Your task to perform on an android device: turn on airplane mode Image 0: 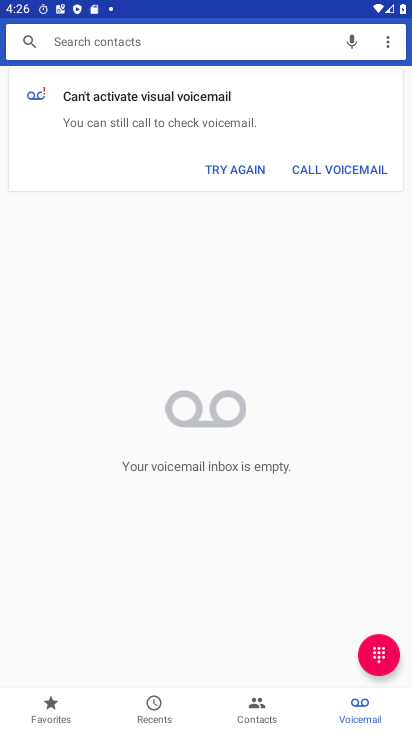
Step 0: press home button
Your task to perform on an android device: turn on airplane mode Image 1: 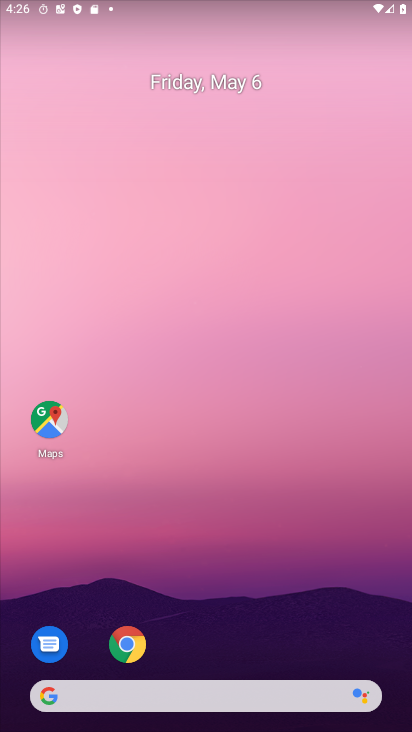
Step 1: drag from (365, 649) to (225, 233)
Your task to perform on an android device: turn on airplane mode Image 2: 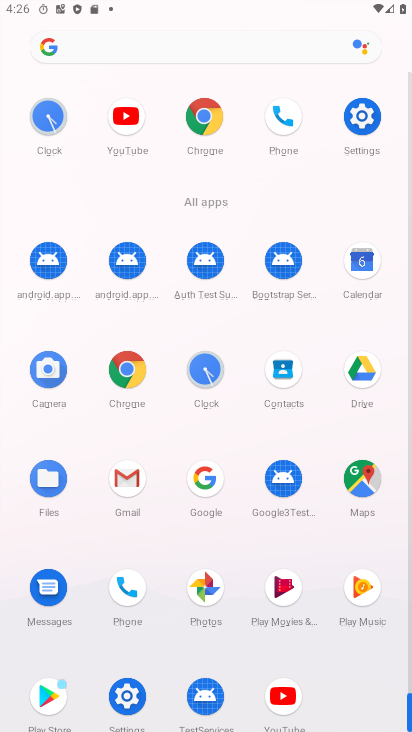
Step 2: click (365, 118)
Your task to perform on an android device: turn on airplane mode Image 3: 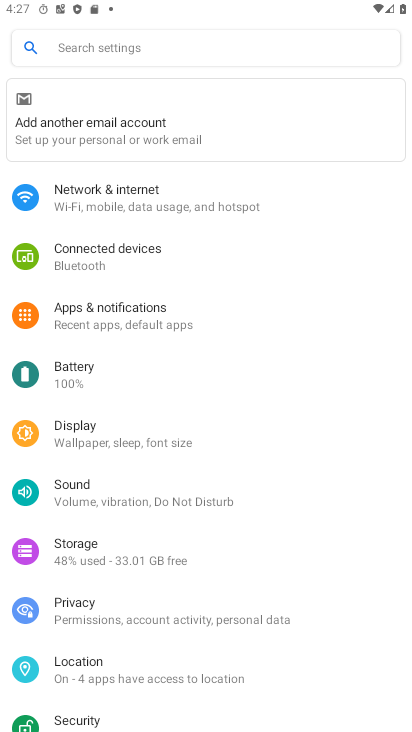
Step 3: click (113, 316)
Your task to perform on an android device: turn on airplane mode Image 4: 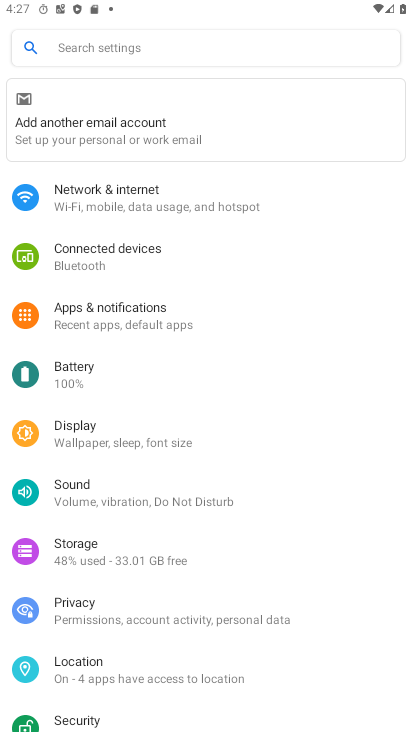
Step 4: click (112, 315)
Your task to perform on an android device: turn on airplane mode Image 5: 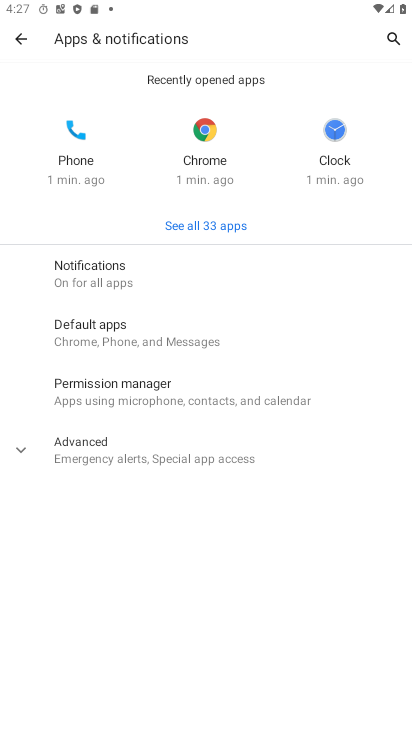
Step 5: click (29, 38)
Your task to perform on an android device: turn on airplane mode Image 6: 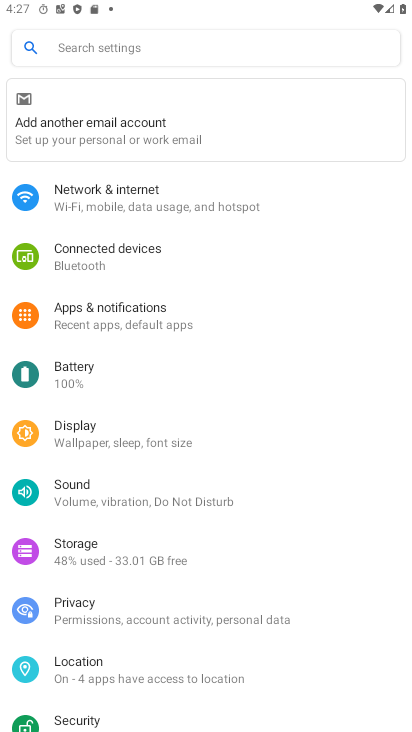
Step 6: click (107, 204)
Your task to perform on an android device: turn on airplane mode Image 7: 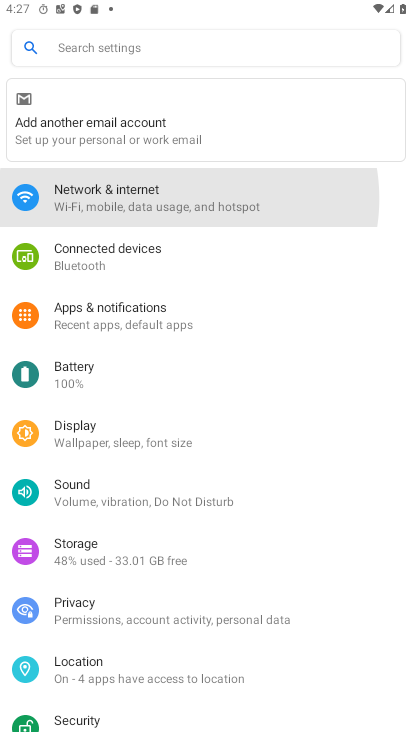
Step 7: click (100, 202)
Your task to perform on an android device: turn on airplane mode Image 8: 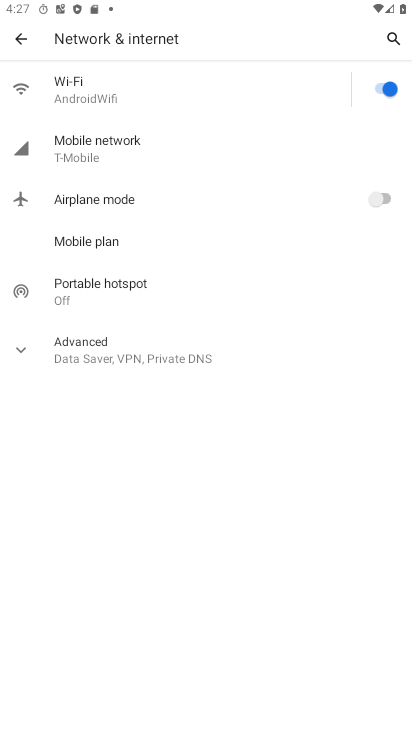
Step 8: click (374, 200)
Your task to perform on an android device: turn on airplane mode Image 9: 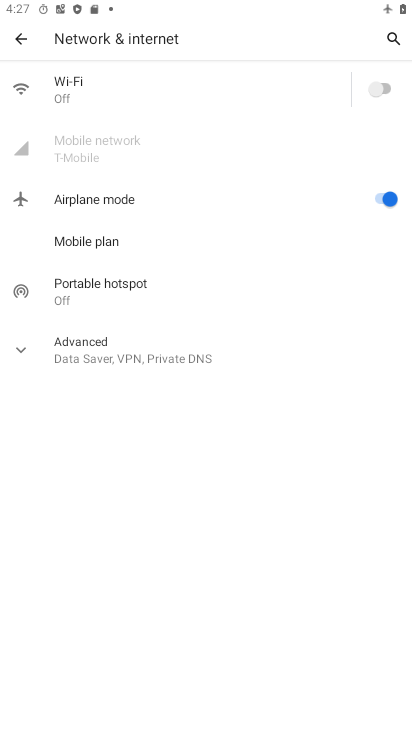
Step 9: task complete